Your task to perform on an android device: check the backup settings in the google photos Image 0: 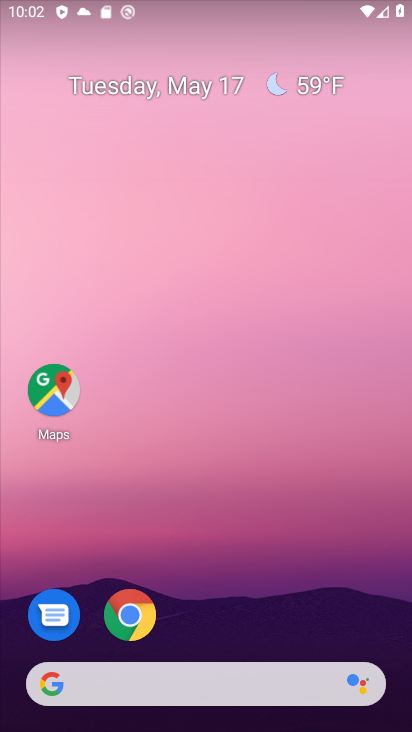
Step 0: drag from (240, 616) to (236, 0)
Your task to perform on an android device: check the backup settings in the google photos Image 1: 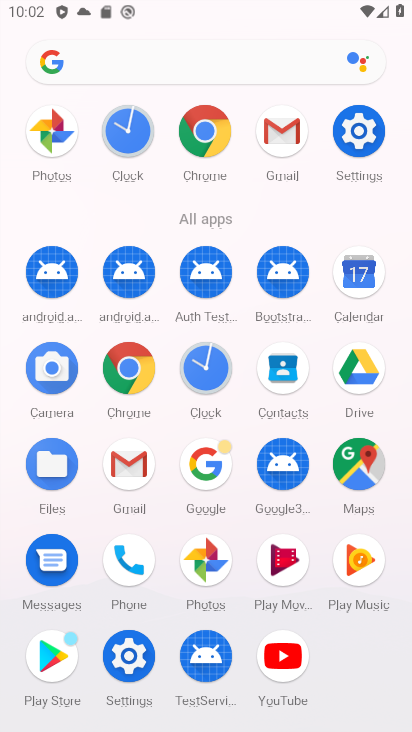
Step 1: click (209, 573)
Your task to perform on an android device: check the backup settings in the google photos Image 2: 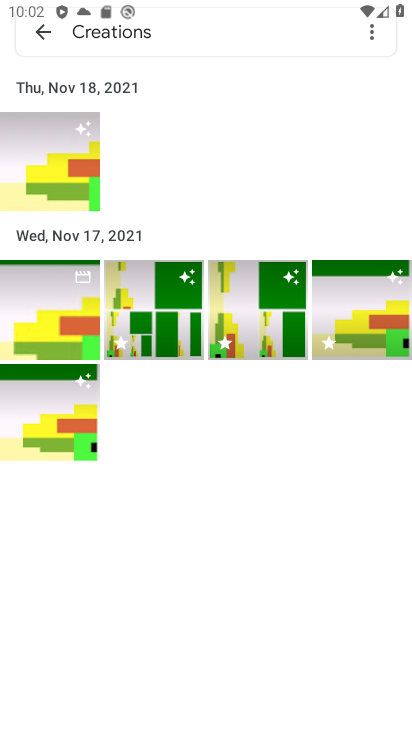
Step 2: click (31, 35)
Your task to perform on an android device: check the backup settings in the google photos Image 3: 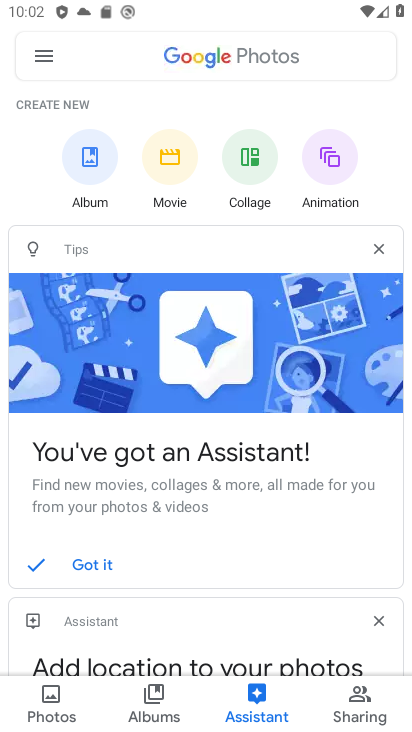
Step 3: click (51, 58)
Your task to perform on an android device: check the backup settings in the google photos Image 4: 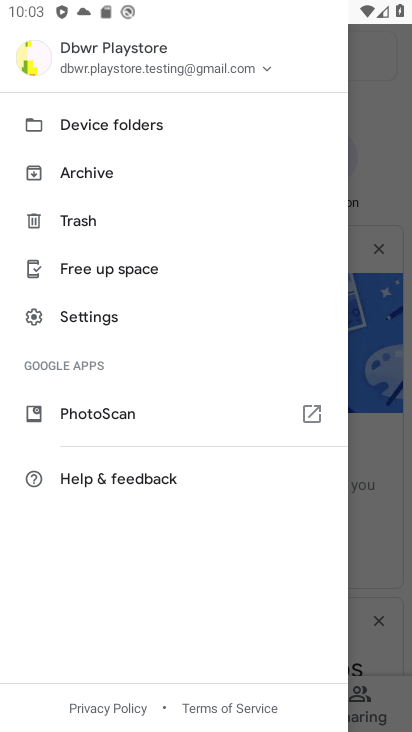
Step 4: click (101, 321)
Your task to perform on an android device: check the backup settings in the google photos Image 5: 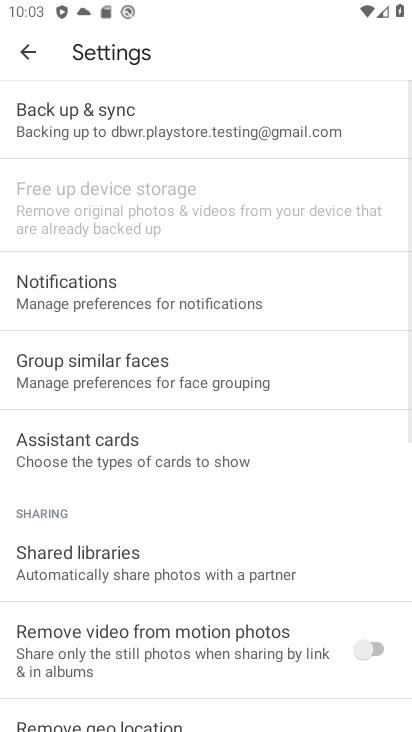
Step 5: click (131, 97)
Your task to perform on an android device: check the backup settings in the google photos Image 6: 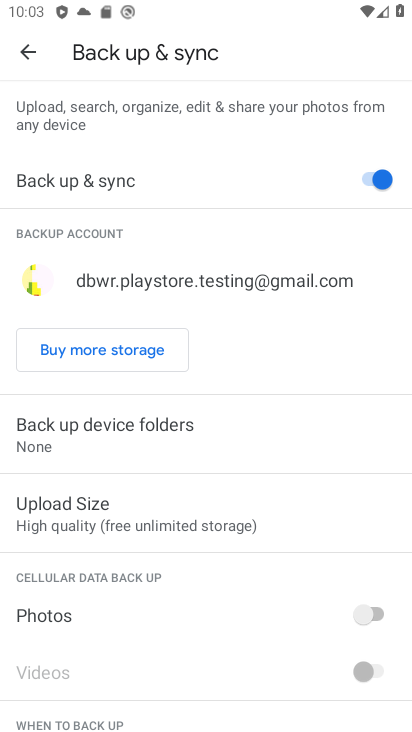
Step 6: task complete